Your task to perform on an android device: Go to Google maps Image 0: 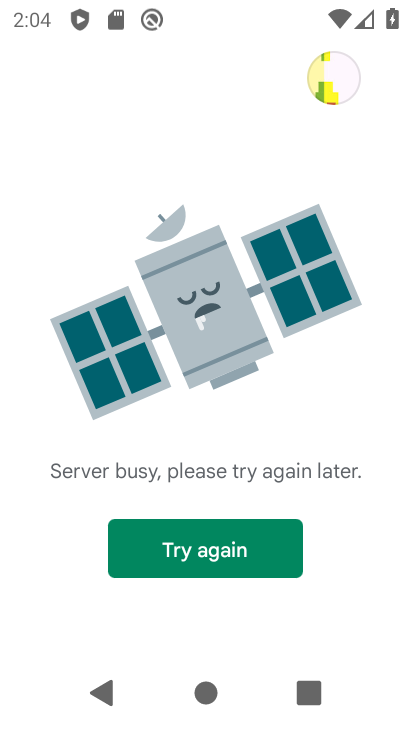
Step 0: press home button
Your task to perform on an android device: Go to Google maps Image 1: 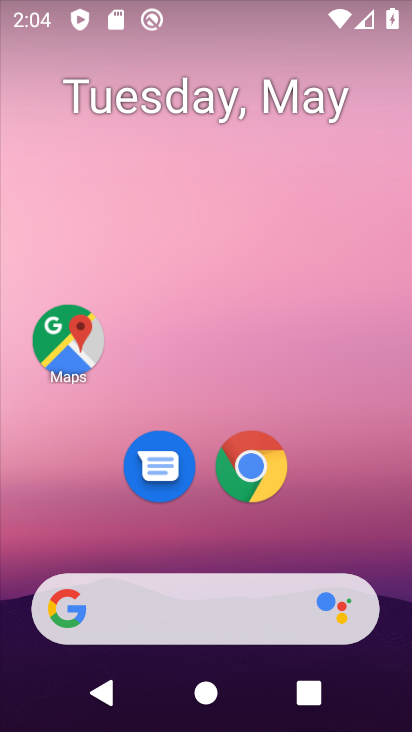
Step 1: drag from (331, 534) to (346, 1)
Your task to perform on an android device: Go to Google maps Image 2: 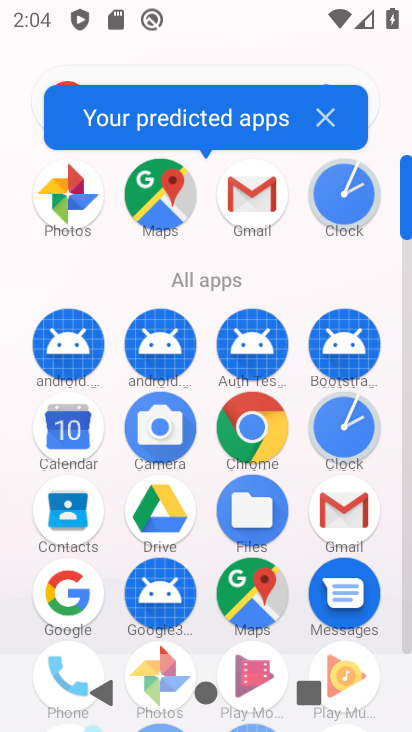
Step 2: click (168, 182)
Your task to perform on an android device: Go to Google maps Image 3: 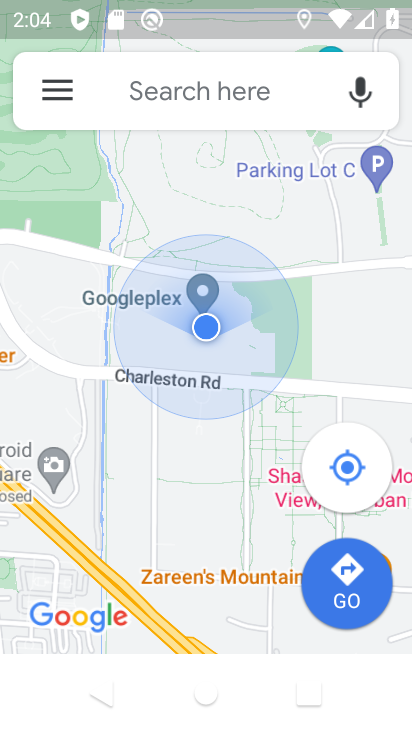
Step 3: task complete